Your task to perform on an android device: Go to eBay Image 0: 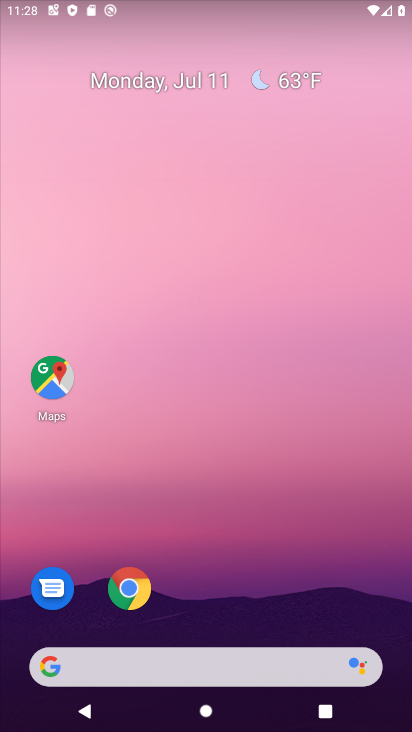
Step 0: click (122, 582)
Your task to perform on an android device: Go to eBay Image 1: 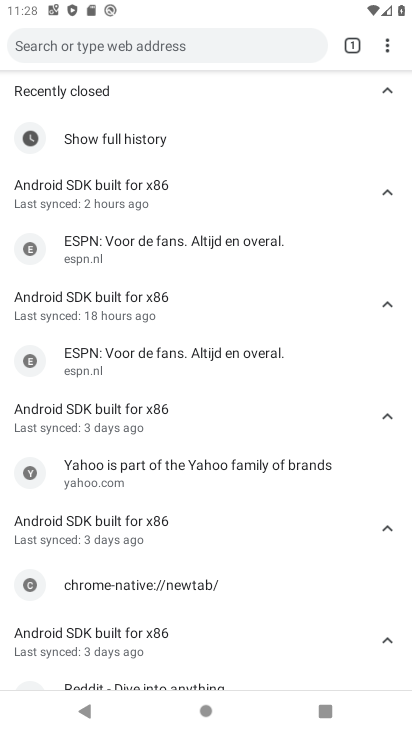
Step 1: click (388, 43)
Your task to perform on an android device: Go to eBay Image 2: 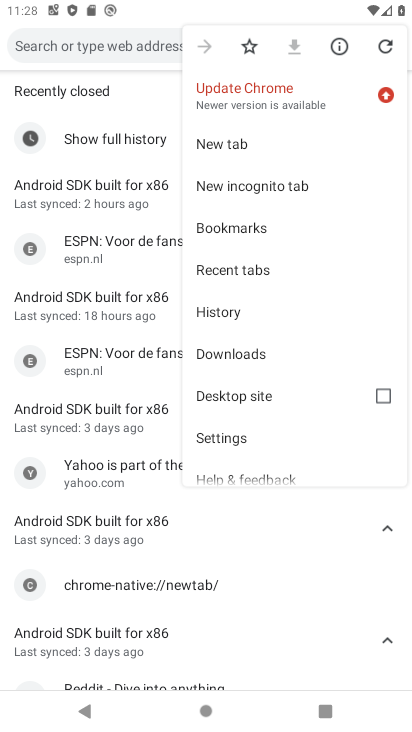
Step 2: click (223, 144)
Your task to perform on an android device: Go to eBay Image 3: 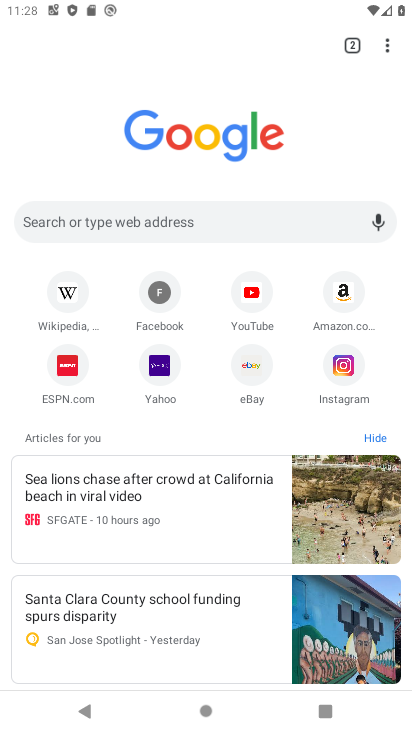
Step 3: click (248, 370)
Your task to perform on an android device: Go to eBay Image 4: 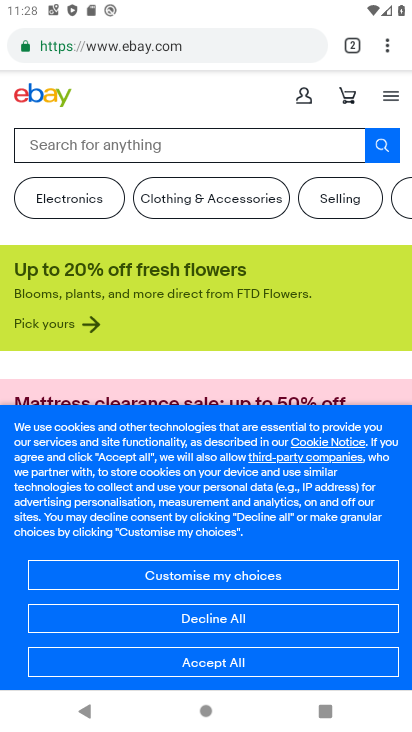
Step 4: task complete